Your task to perform on an android device: Add usb-c to usb-a to the cart on amazon.com, then select checkout. Image 0: 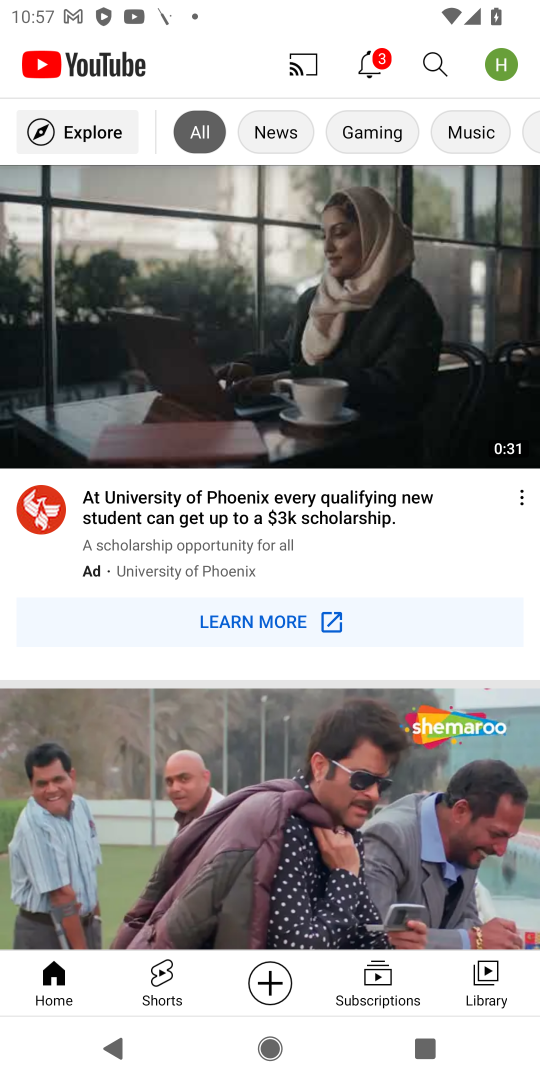
Step 0: press home button
Your task to perform on an android device: Add usb-c to usb-a to the cart on amazon.com, then select checkout. Image 1: 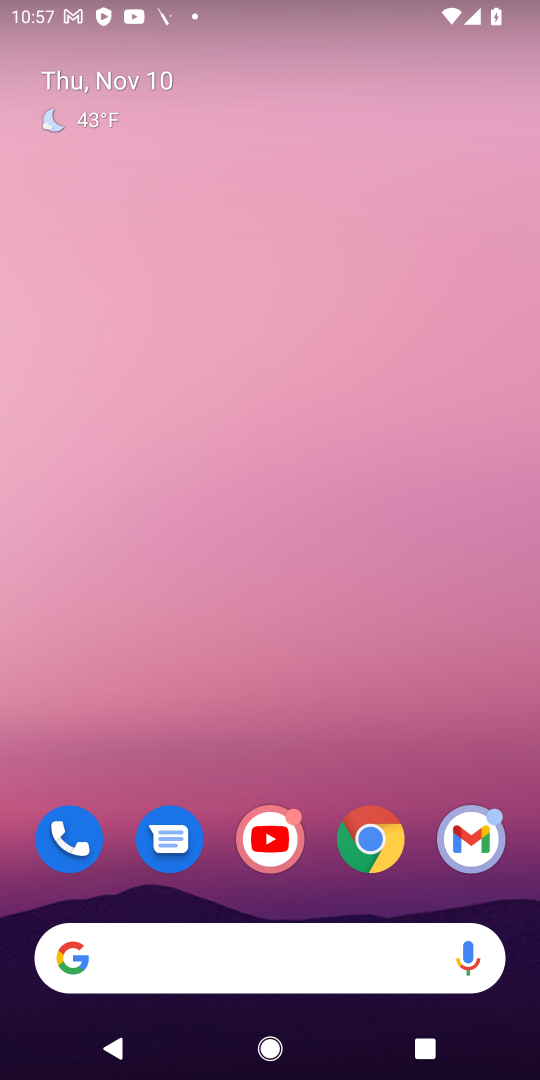
Step 1: click (365, 852)
Your task to perform on an android device: Add usb-c to usb-a to the cart on amazon.com, then select checkout. Image 2: 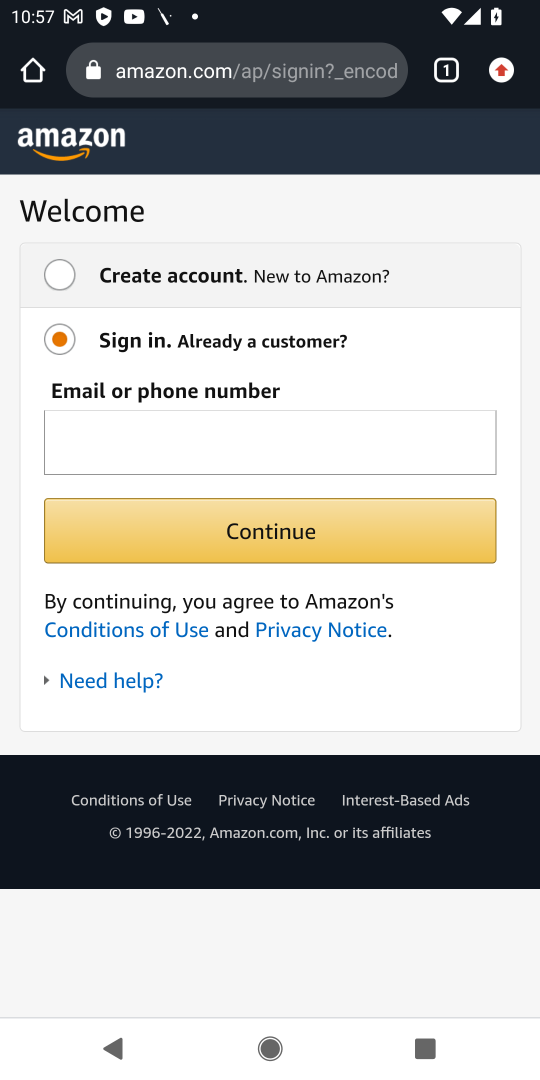
Step 2: press back button
Your task to perform on an android device: Add usb-c to usb-a to the cart on amazon.com, then select checkout. Image 3: 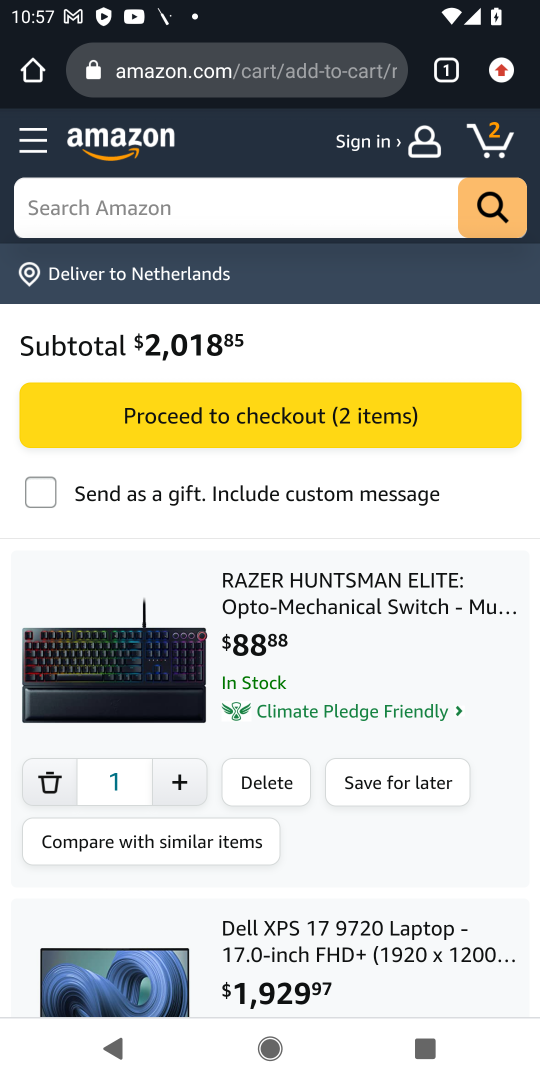
Step 3: click (283, 207)
Your task to perform on an android device: Add usb-c to usb-a to the cart on amazon.com, then select checkout. Image 4: 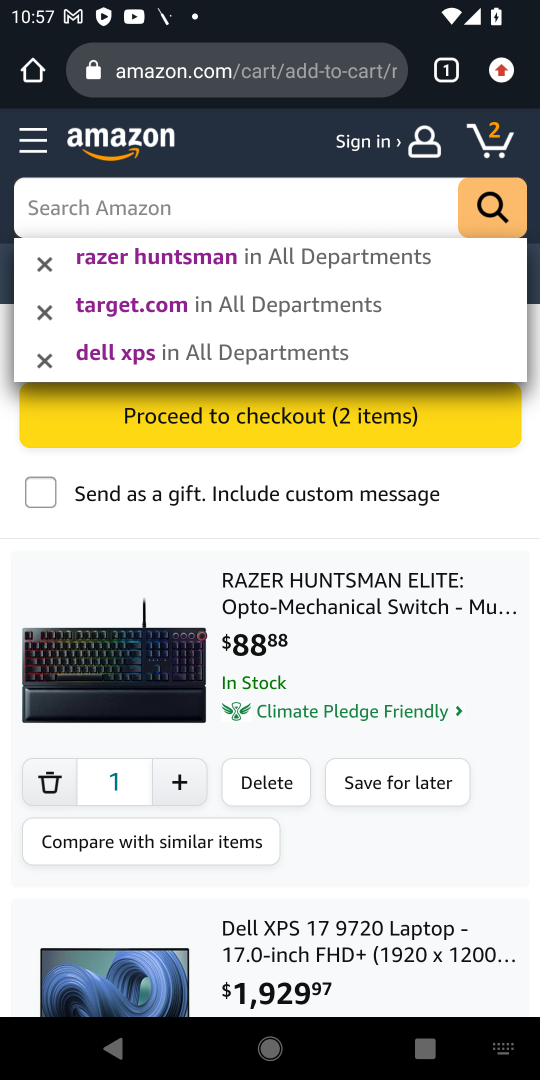
Step 4: press enter
Your task to perform on an android device: Add usb-c to usb-a to the cart on amazon.com, then select checkout. Image 5: 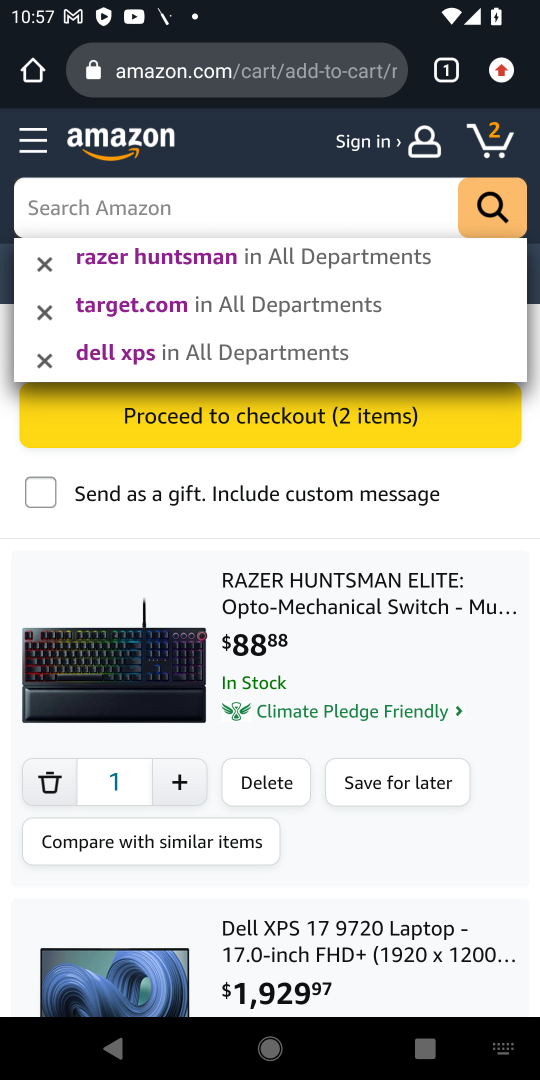
Step 5: type "usb-c to usb-a"
Your task to perform on an android device: Add usb-c to usb-a to the cart on amazon.com, then select checkout. Image 6: 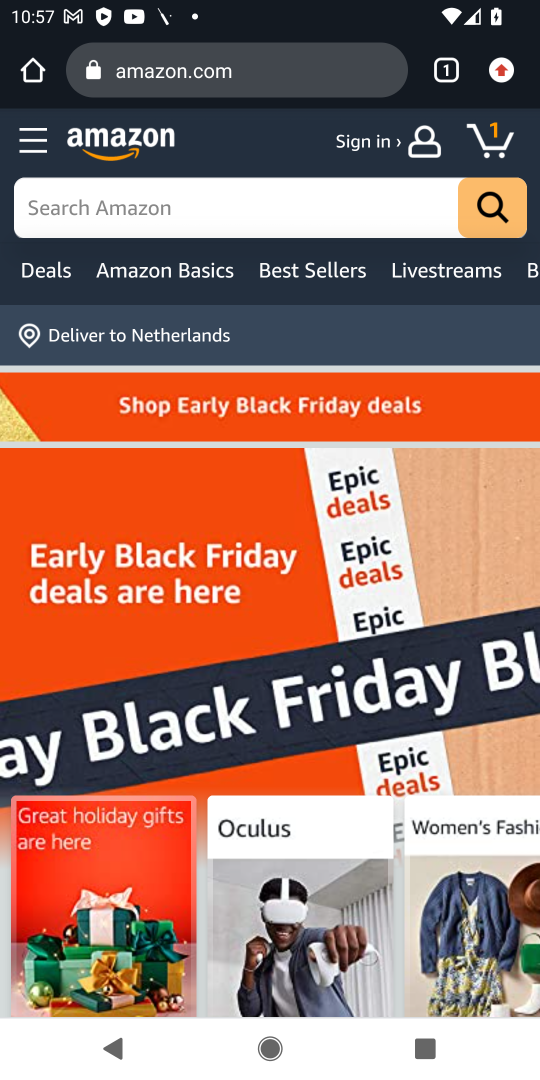
Step 6: click (251, 194)
Your task to perform on an android device: Add usb-c to usb-a to the cart on amazon.com, then select checkout. Image 7: 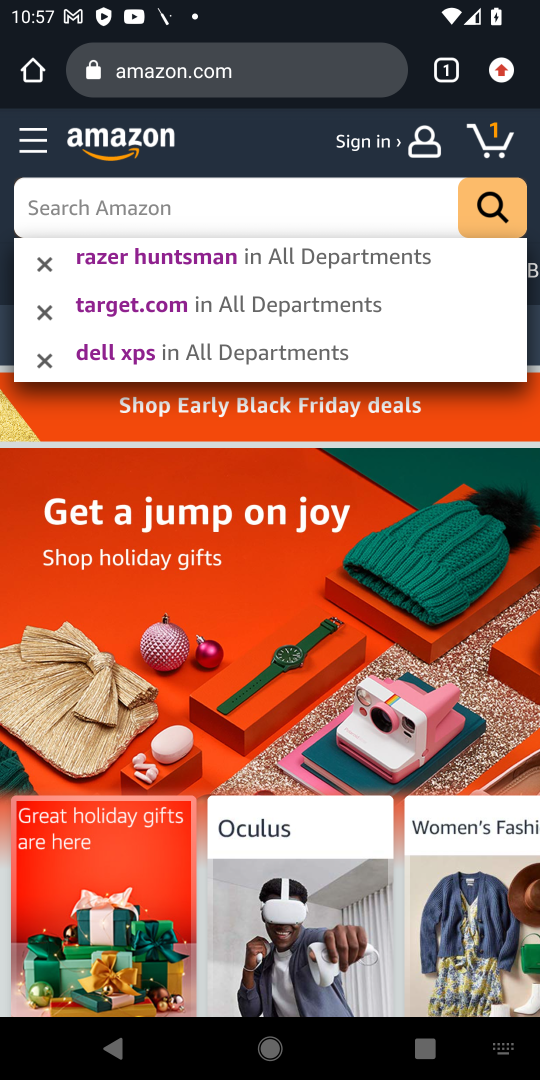
Step 7: type "usb-c to usb-a"
Your task to perform on an android device: Add usb-c to usb-a to the cart on amazon.com, then select checkout. Image 8: 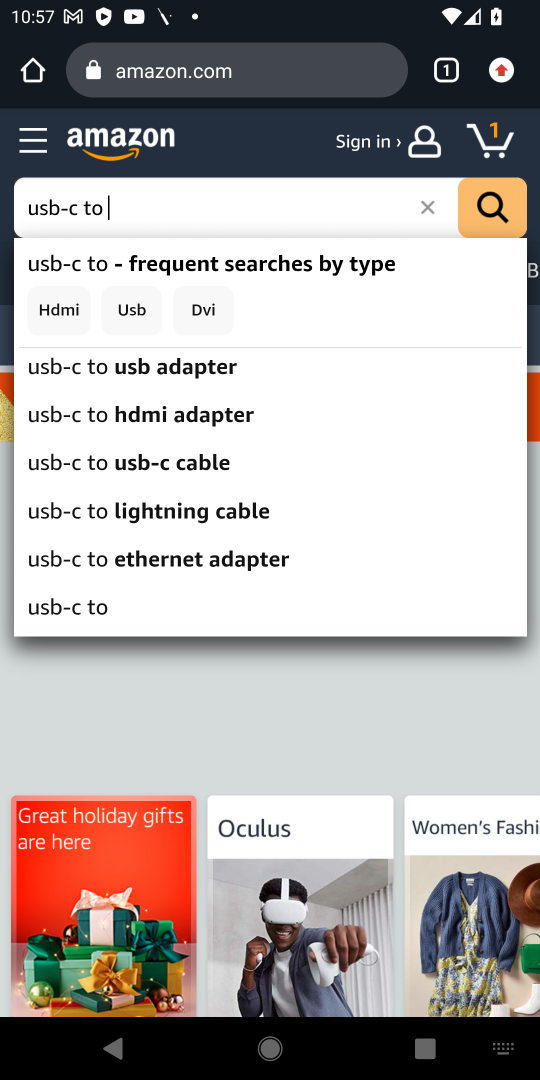
Step 8: press enter
Your task to perform on an android device: Add usb-c to usb-a to the cart on amazon.com, then select checkout. Image 9: 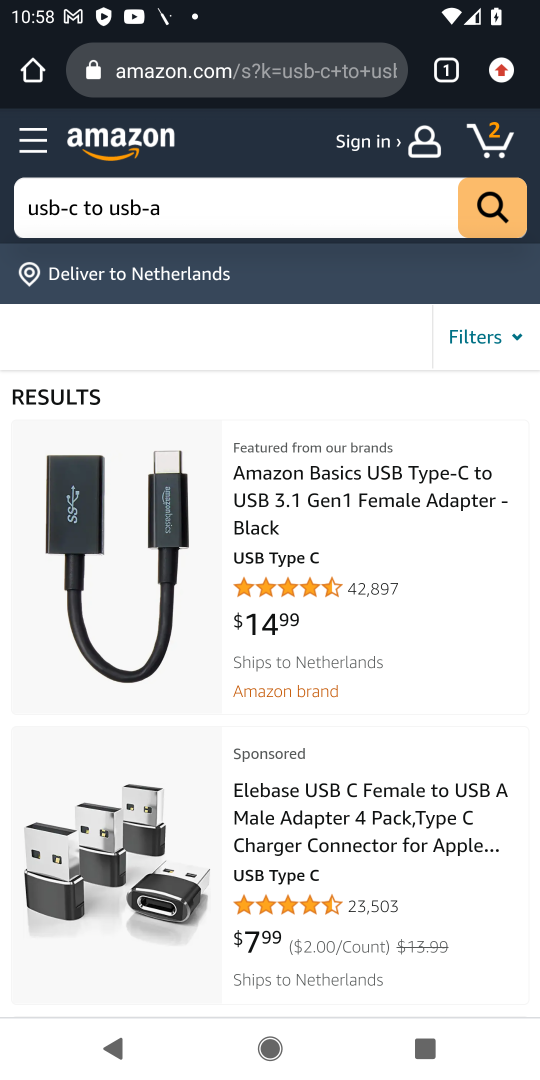
Step 9: click (83, 840)
Your task to perform on an android device: Add usb-c to usb-a to the cart on amazon.com, then select checkout. Image 10: 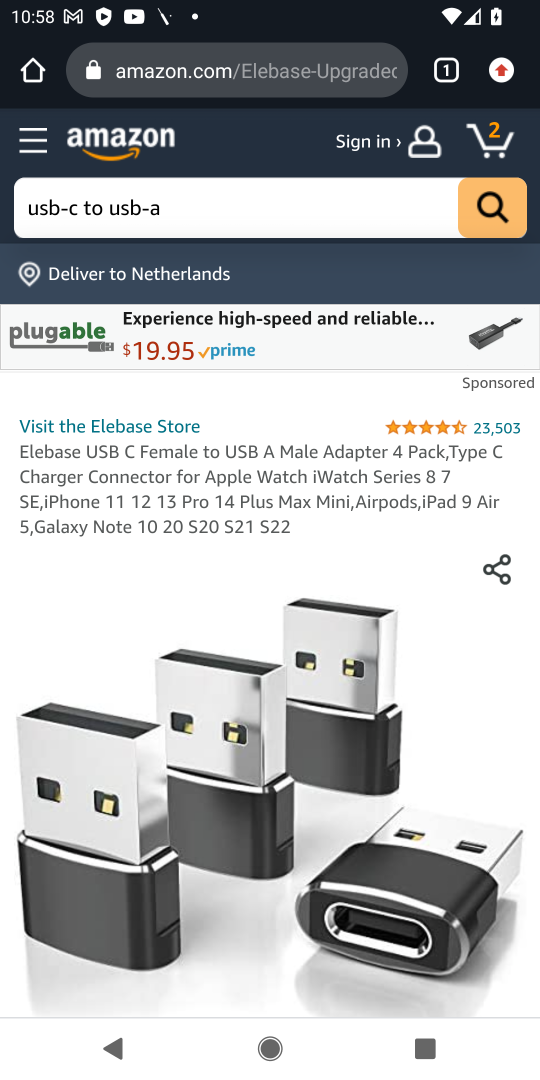
Step 10: drag from (340, 590) to (454, 393)
Your task to perform on an android device: Add usb-c to usb-a to the cart on amazon.com, then select checkout. Image 11: 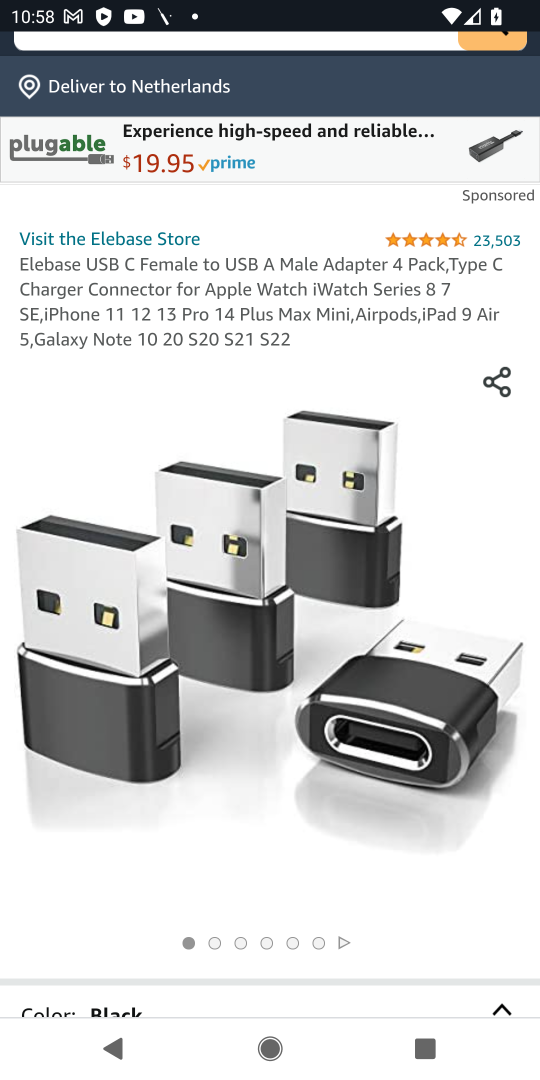
Step 11: drag from (404, 725) to (377, 356)
Your task to perform on an android device: Add usb-c to usb-a to the cart on amazon.com, then select checkout. Image 12: 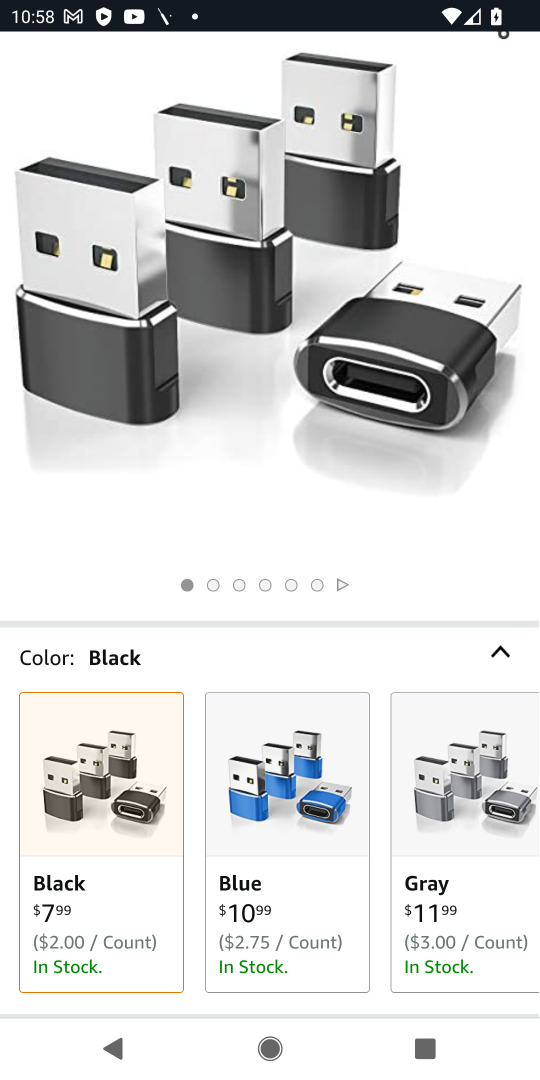
Step 12: drag from (389, 620) to (398, 122)
Your task to perform on an android device: Add usb-c to usb-a to the cart on amazon.com, then select checkout. Image 13: 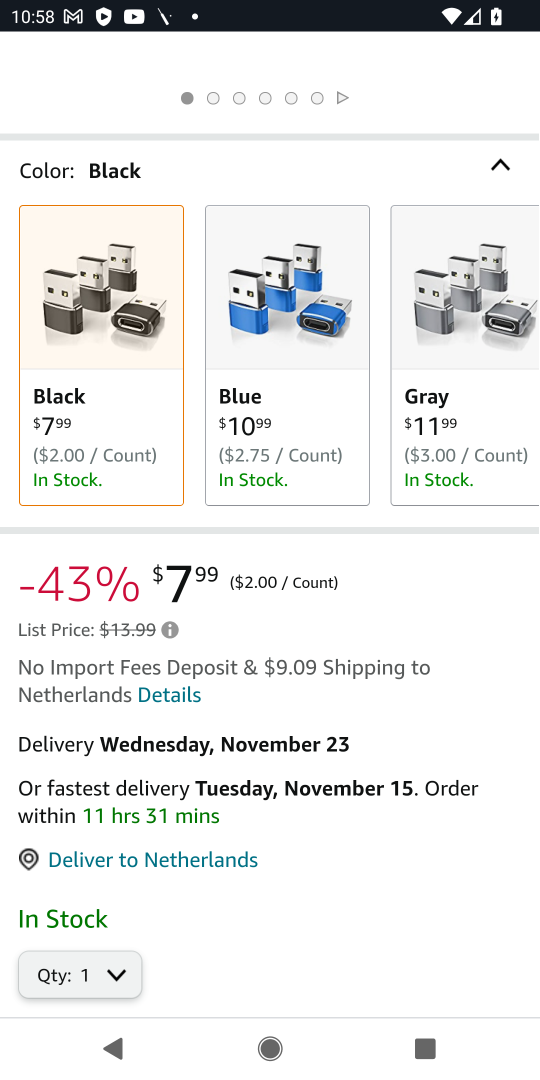
Step 13: drag from (412, 709) to (425, 312)
Your task to perform on an android device: Add usb-c to usb-a to the cart on amazon.com, then select checkout. Image 14: 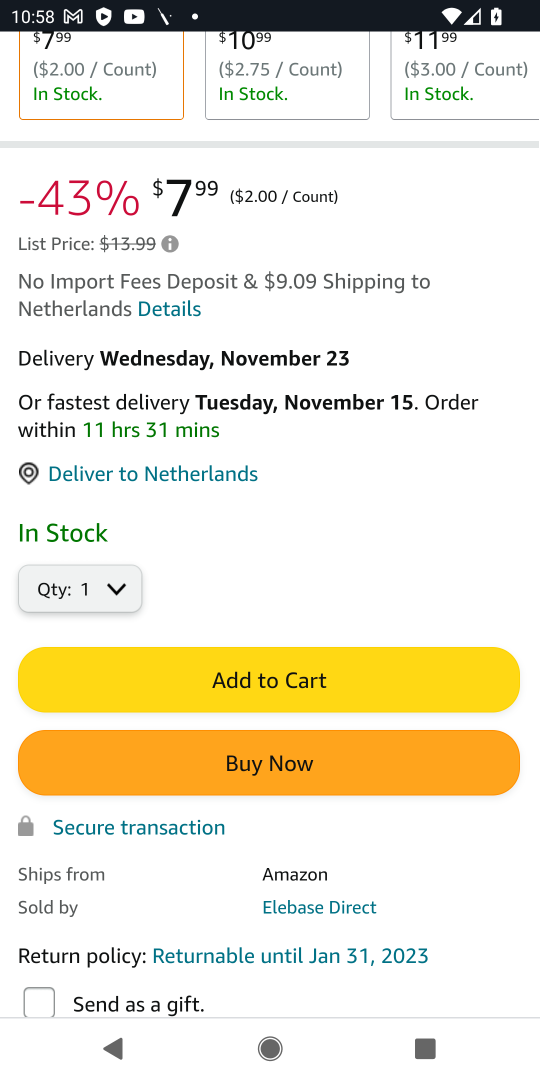
Step 14: click (331, 670)
Your task to perform on an android device: Add usb-c to usb-a to the cart on amazon.com, then select checkout. Image 15: 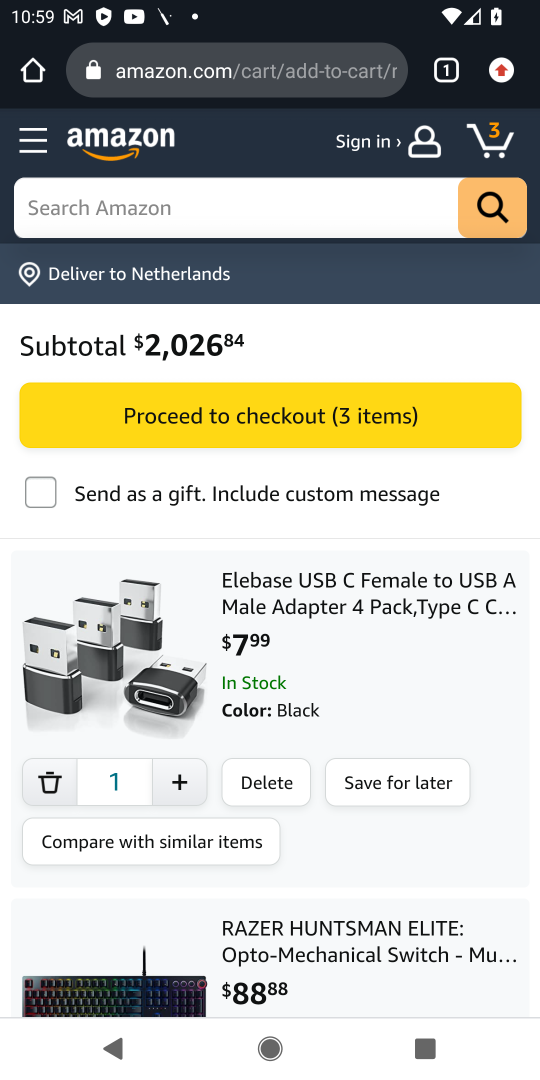
Step 15: click (252, 422)
Your task to perform on an android device: Add usb-c to usb-a to the cart on amazon.com, then select checkout. Image 16: 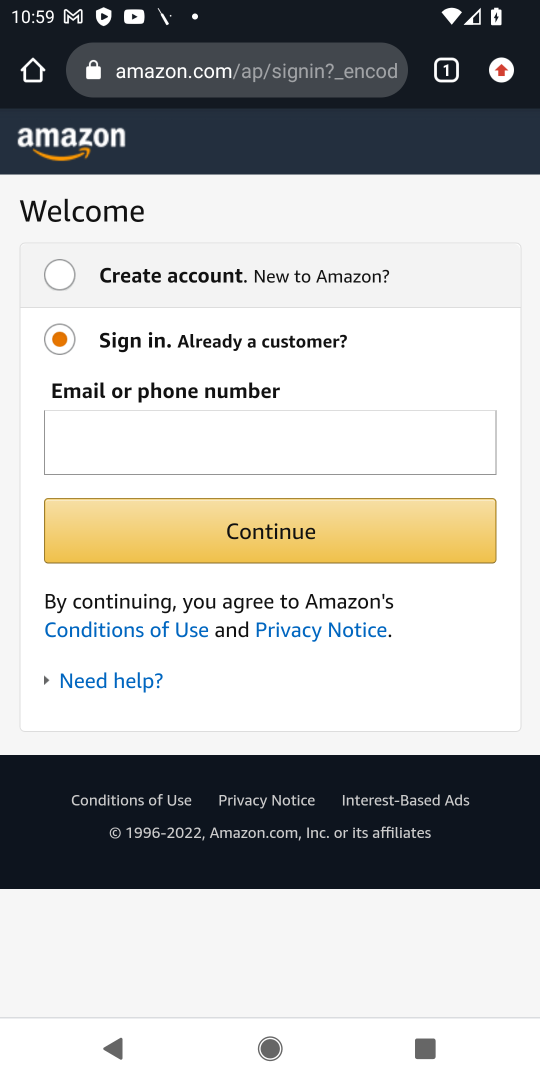
Step 16: task complete